Your task to perform on an android device: Open Google Image 0: 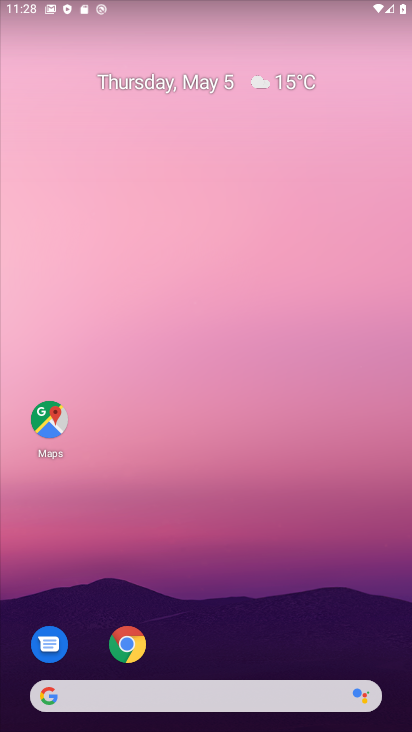
Step 0: click (174, 695)
Your task to perform on an android device: Open Google Image 1: 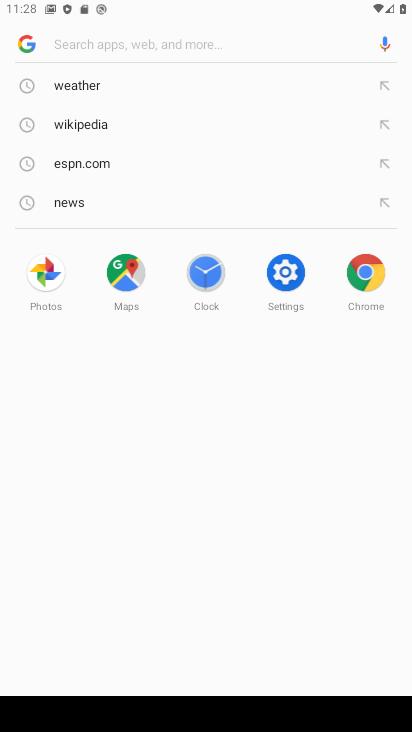
Step 1: type "google"
Your task to perform on an android device: Open Google Image 2: 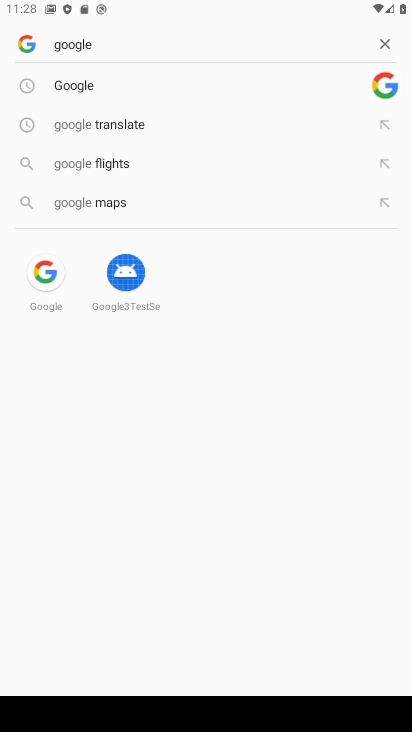
Step 2: click (40, 277)
Your task to perform on an android device: Open Google Image 3: 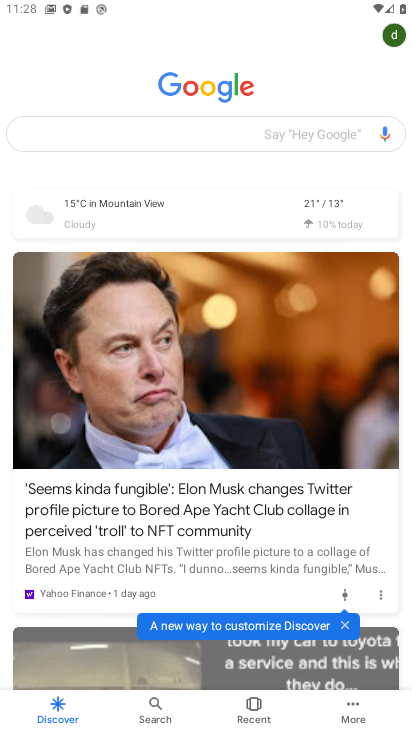
Step 3: task complete